Your task to perform on an android device: Go to eBay Image 0: 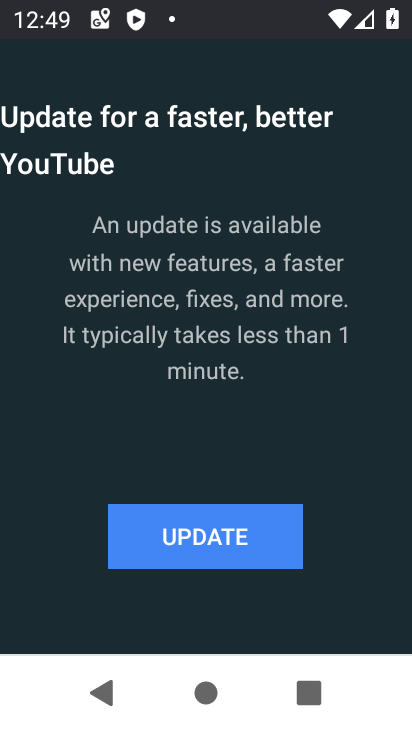
Step 0: press home button
Your task to perform on an android device: Go to eBay Image 1: 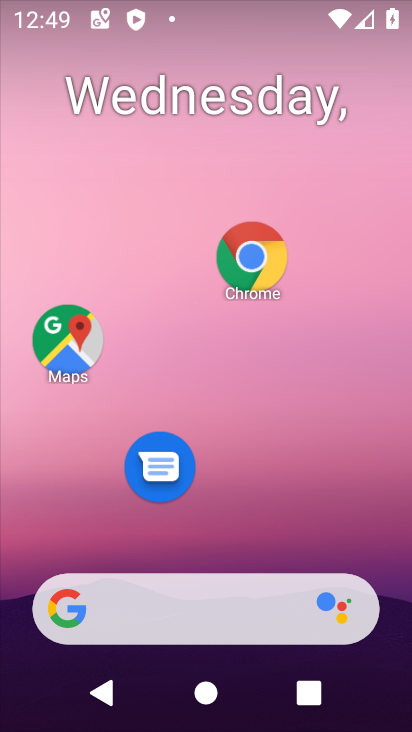
Step 1: drag from (307, 519) to (308, 181)
Your task to perform on an android device: Go to eBay Image 2: 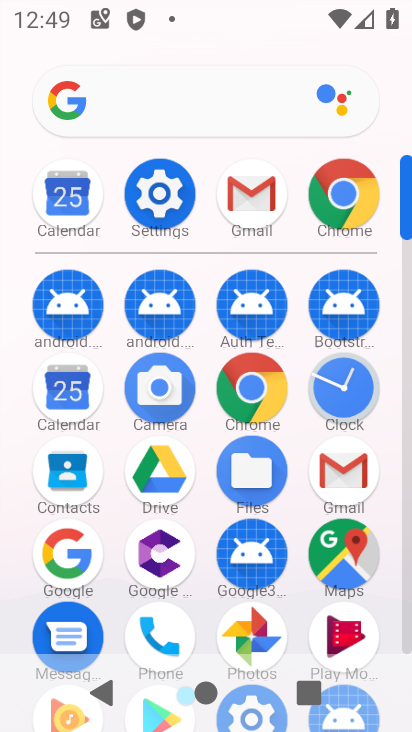
Step 2: click (339, 199)
Your task to perform on an android device: Go to eBay Image 3: 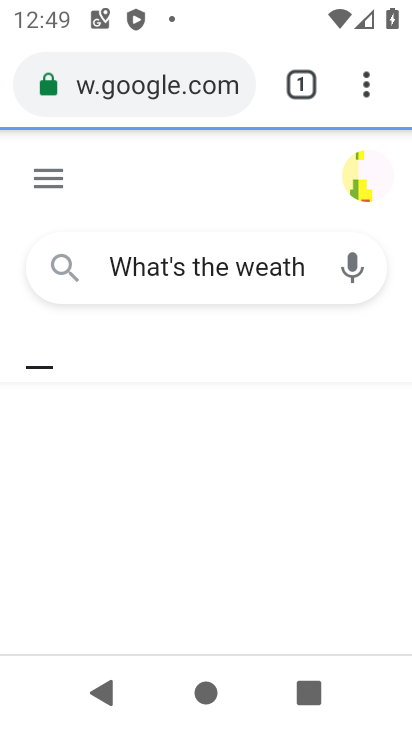
Step 3: click (183, 86)
Your task to perform on an android device: Go to eBay Image 4: 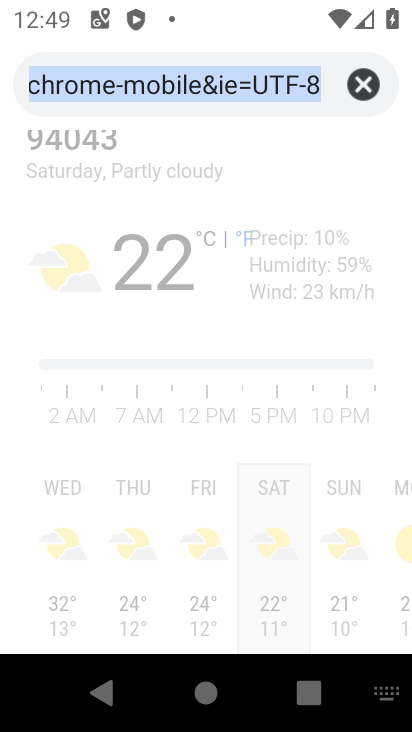
Step 4: click (373, 78)
Your task to perform on an android device: Go to eBay Image 5: 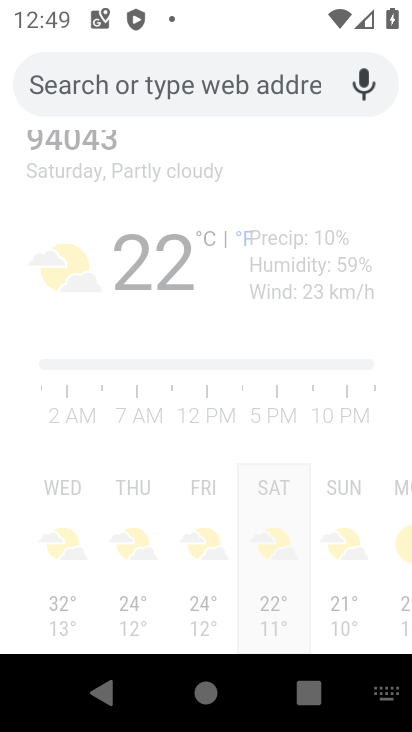
Step 5: type "eBay"
Your task to perform on an android device: Go to eBay Image 6: 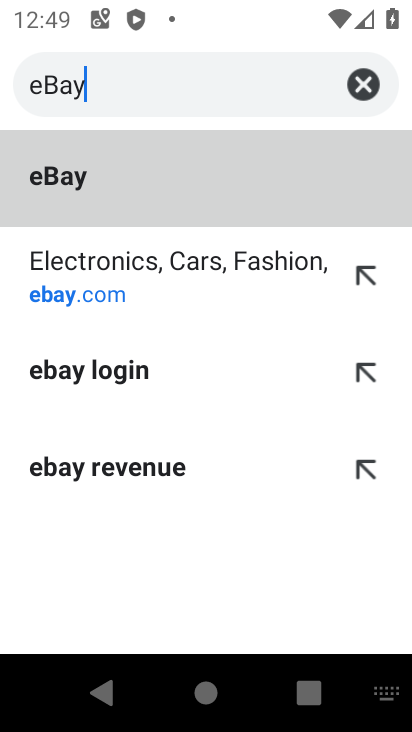
Step 6: click (300, 290)
Your task to perform on an android device: Go to eBay Image 7: 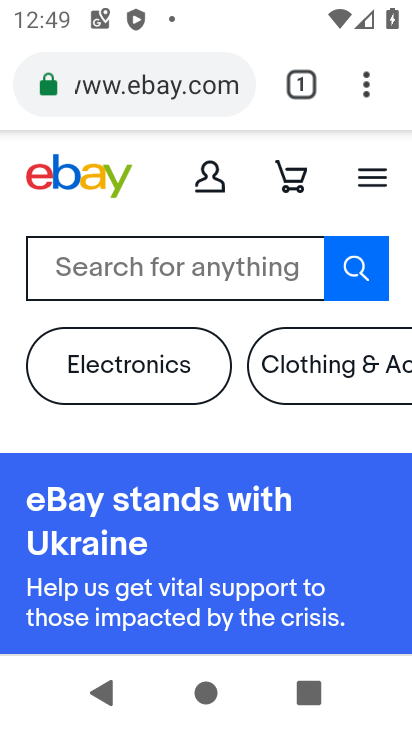
Step 7: task complete